Your task to perform on an android device: empty trash in google photos Image 0: 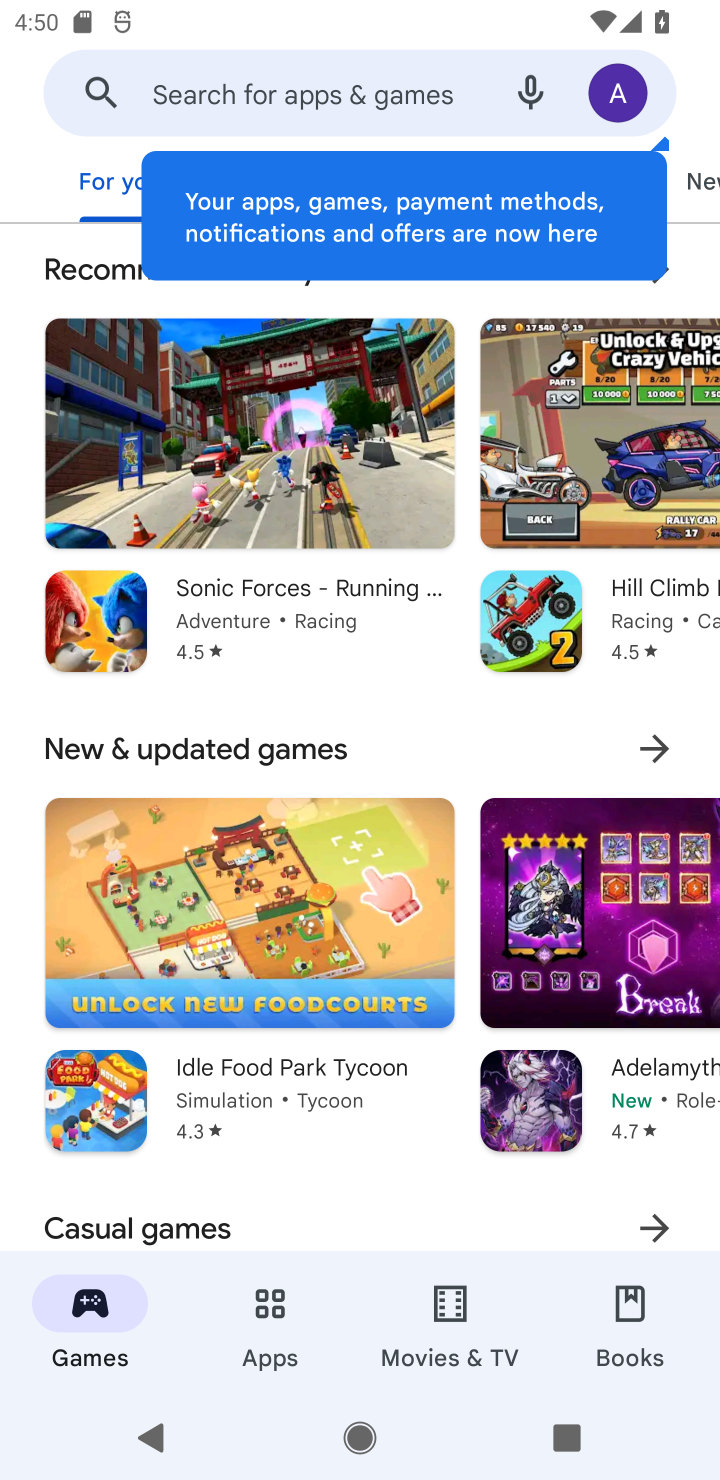
Step 0: press home button
Your task to perform on an android device: empty trash in google photos Image 1: 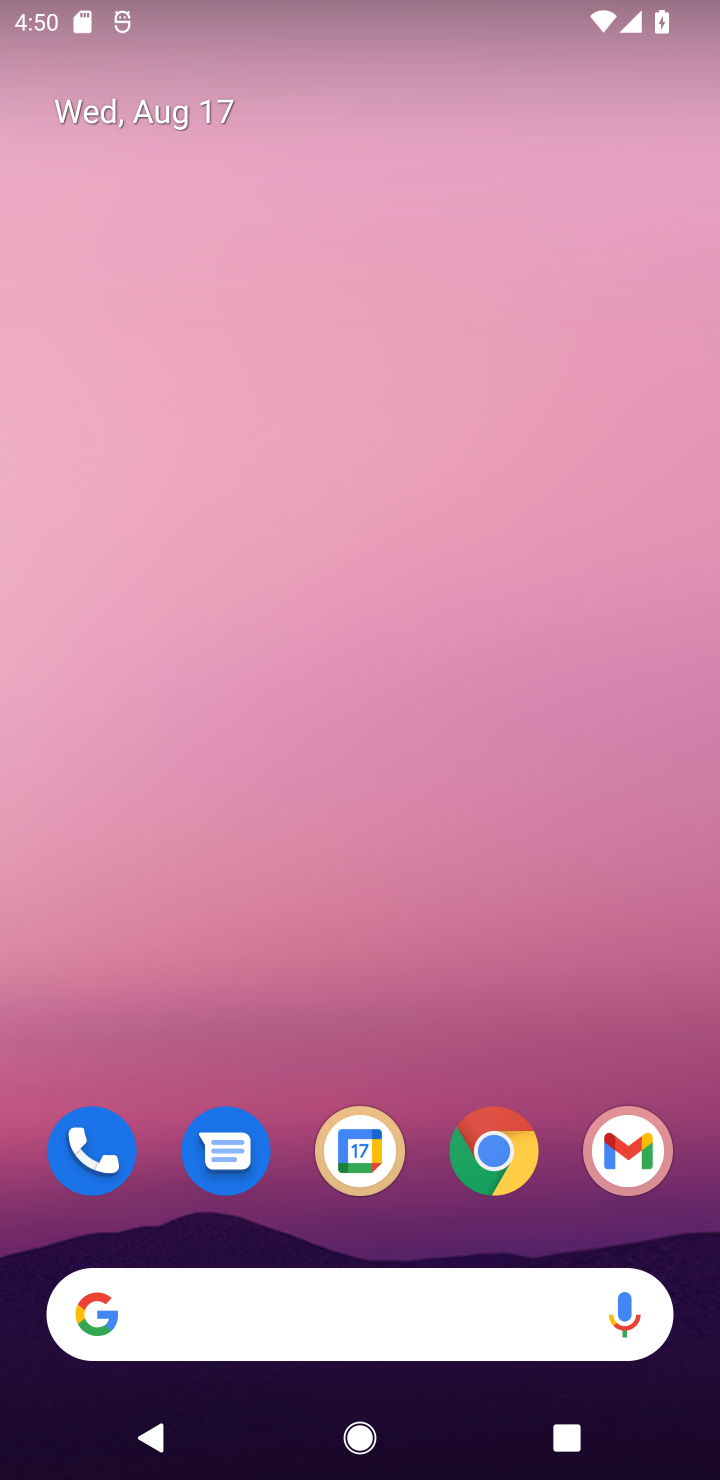
Step 1: drag from (453, 1227) to (371, 29)
Your task to perform on an android device: empty trash in google photos Image 2: 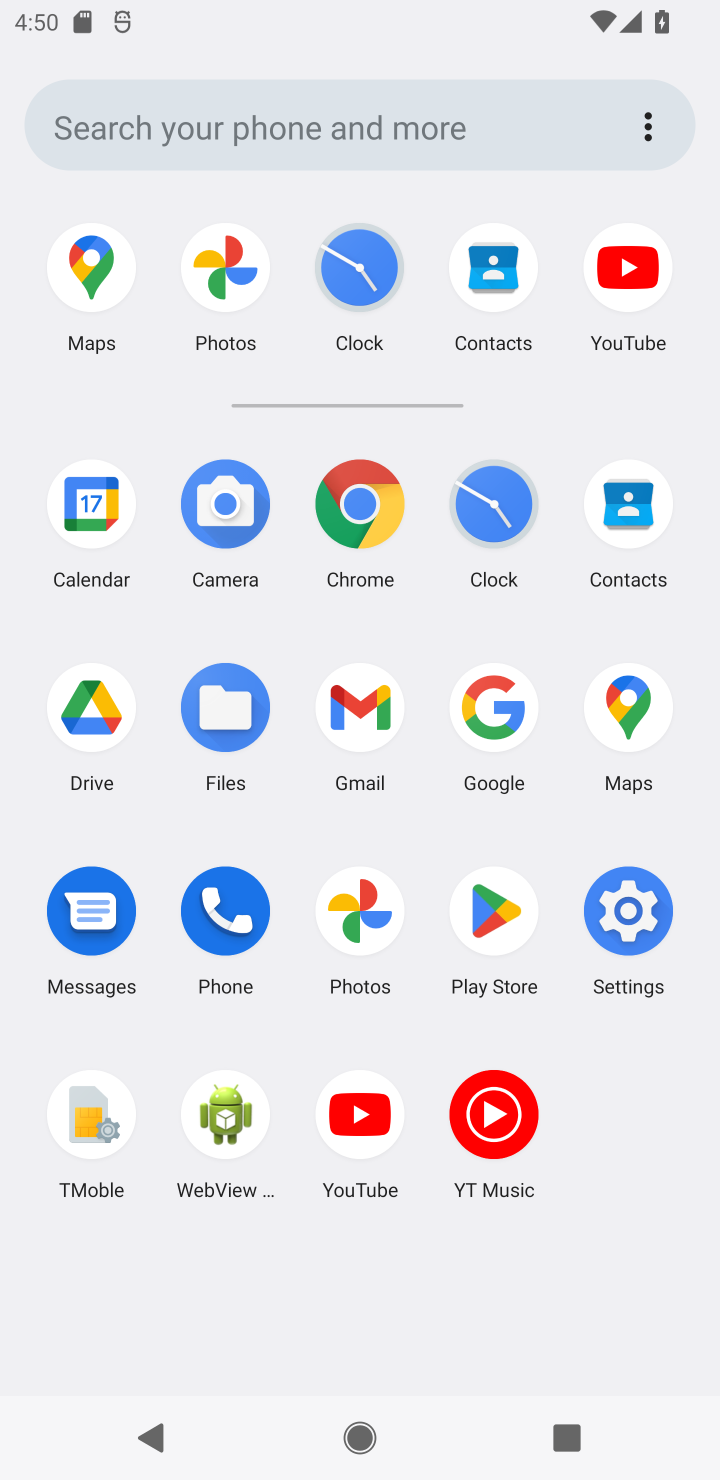
Step 2: click (211, 326)
Your task to perform on an android device: empty trash in google photos Image 3: 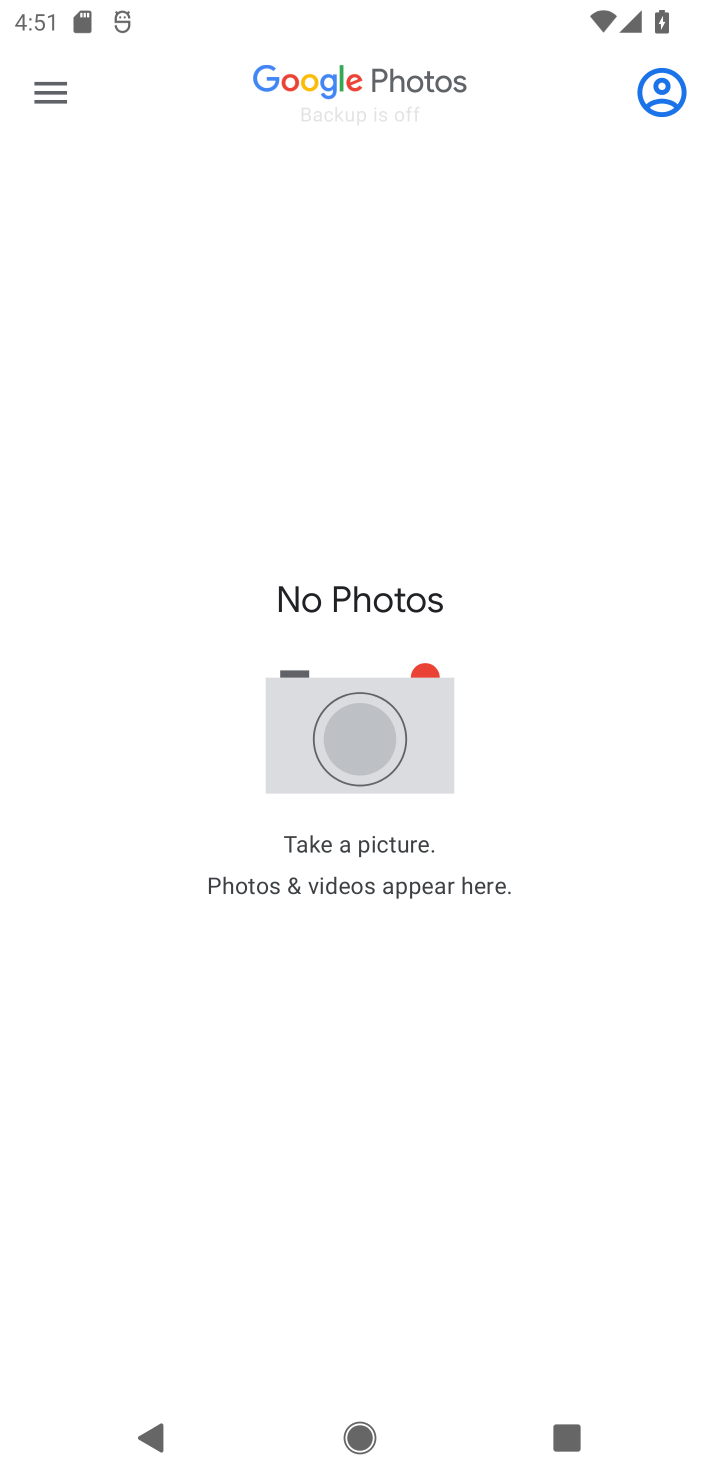
Step 3: task complete